Your task to perform on an android device: open a new tab in the chrome app Image 0: 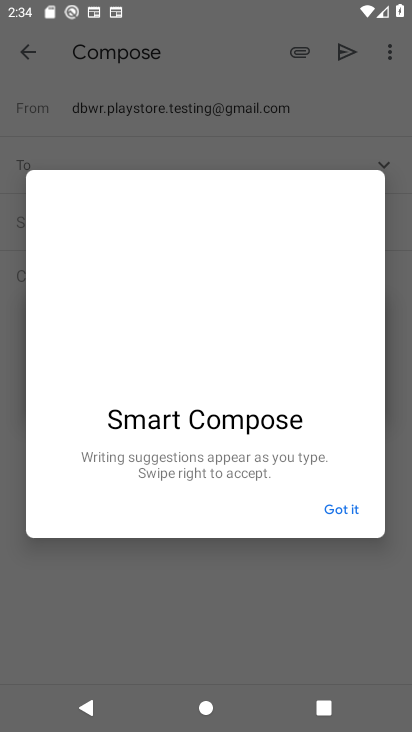
Step 0: press home button
Your task to perform on an android device: open a new tab in the chrome app Image 1: 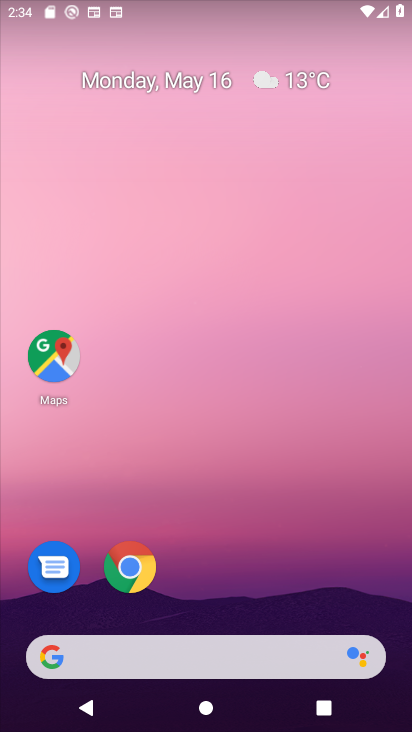
Step 1: click (152, 556)
Your task to perform on an android device: open a new tab in the chrome app Image 2: 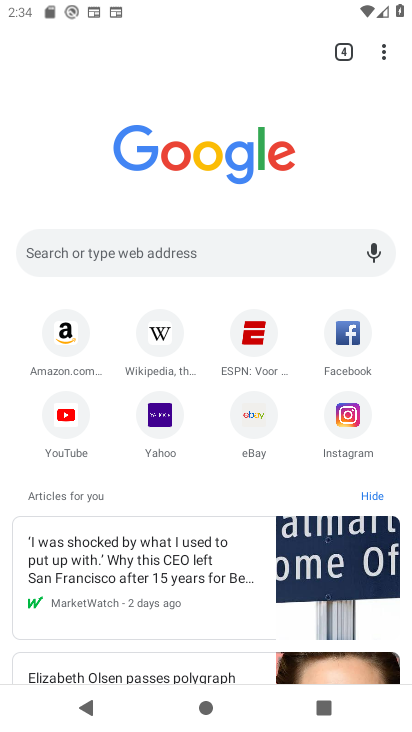
Step 2: click (344, 51)
Your task to perform on an android device: open a new tab in the chrome app Image 3: 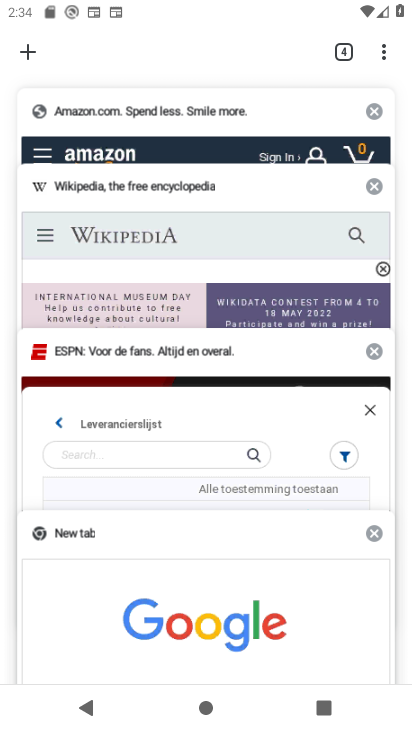
Step 3: click (32, 44)
Your task to perform on an android device: open a new tab in the chrome app Image 4: 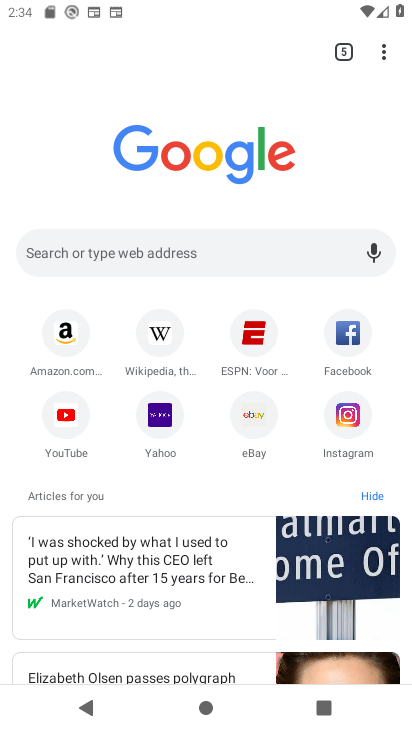
Step 4: task complete